Your task to perform on an android device: Open Google Chrome and click the shortcut for Amazon.com Image 0: 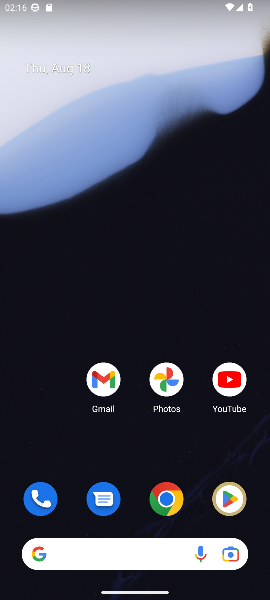
Step 0: click (164, 500)
Your task to perform on an android device: Open Google Chrome and click the shortcut for Amazon.com Image 1: 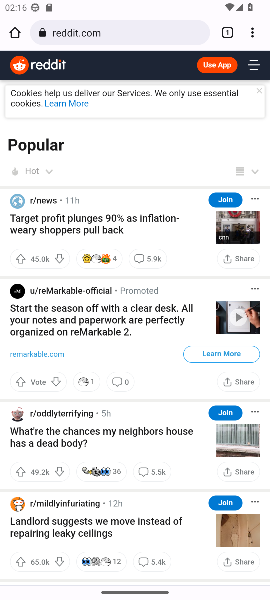
Step 1: click (254, 33)
Your task to perform on an android device: Open Google Chrome and click the shortcut for Amazon.com Image 2: 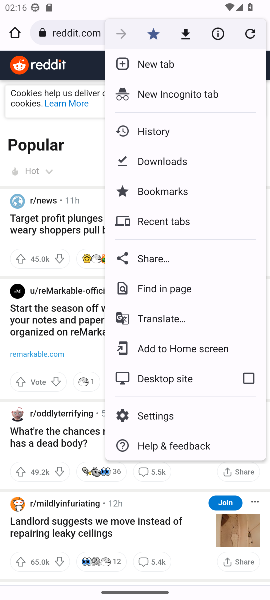
Step 2: click (163, 60)
Your task to perform on an android device: Open Google Chrome and click the shortcut for Amazon.com Image 3: 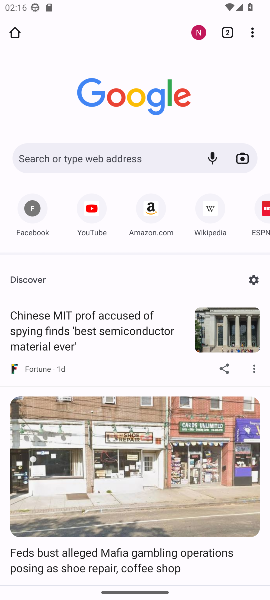
Step 3: click (149, 207)
Your task to perform on an android device: Open Google Chrome and click the shortcut for Amazon.com Image 4: 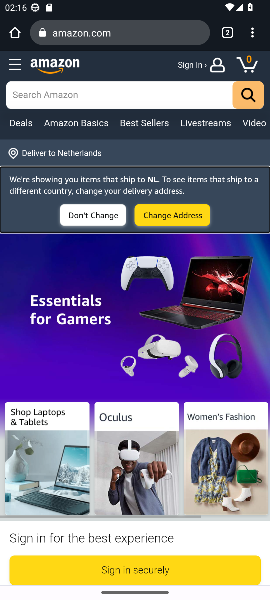
Step 4: task complete